Your task to perform on an android device: Open ESPN.com Image 0: 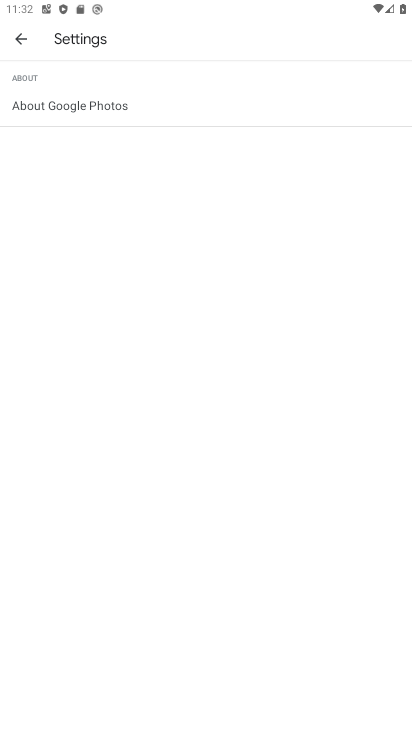
Step 0: press home button
Your task to perform on an android device: Open ESPN.com Image 1: 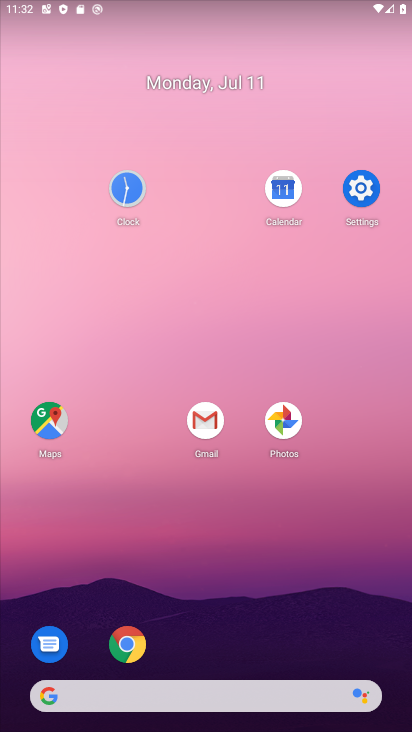
Step 1: click (134, 639)
Your task to perform on an android device: Open ESPN.com Image 2: 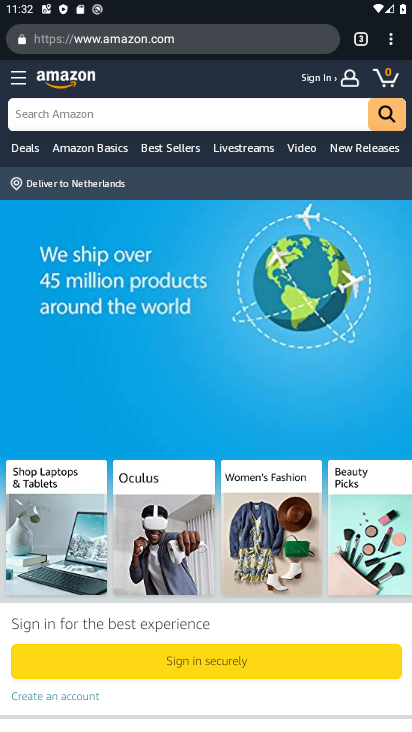
Step 2: click (356, 46)
Your task to perform on an android device: Open ESPN.com Image 3: 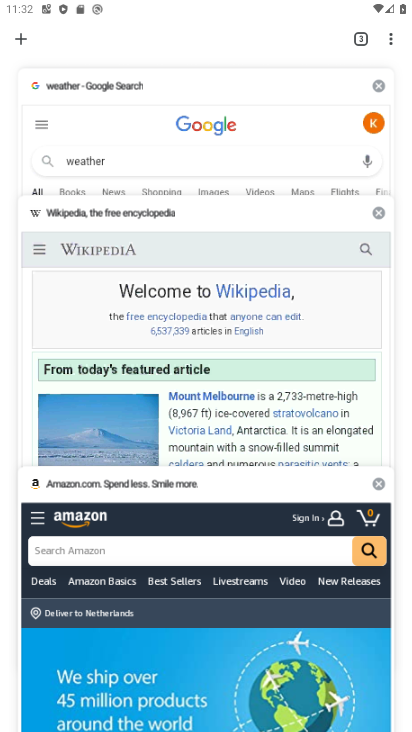
Step 3: click (8, 61)
Your task to perform on an android device: Open ESPN.com Image 4: 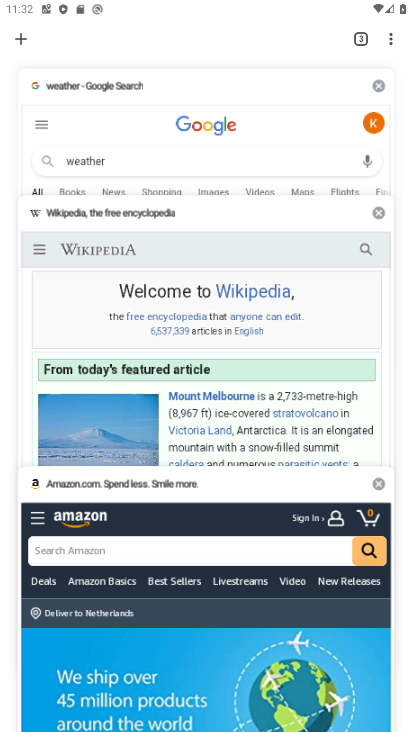
Step 4: click (24, 36)
Your task to perform on an android device: Open ESPN.com Image 5: 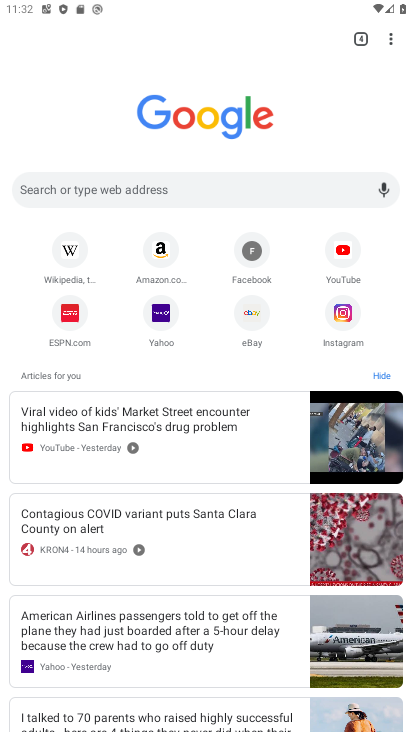
Step 5: click (57, 311)
Your task to perform on an android device: Open ESPN.com Image 6: 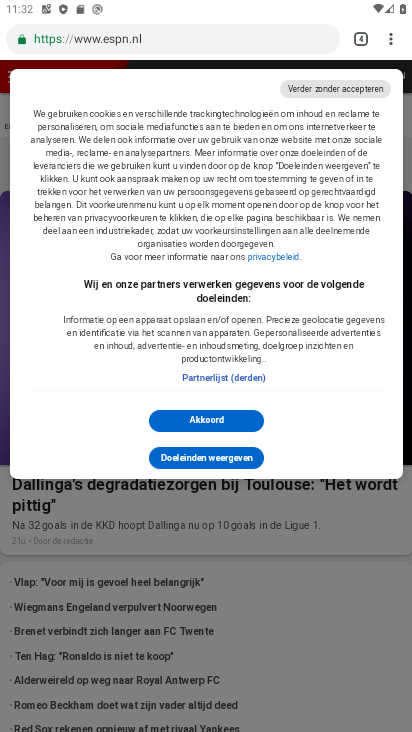
Step 6: task complete